Your task to perform on an android device: allow notifications from all sites in the chrome app Image 0: 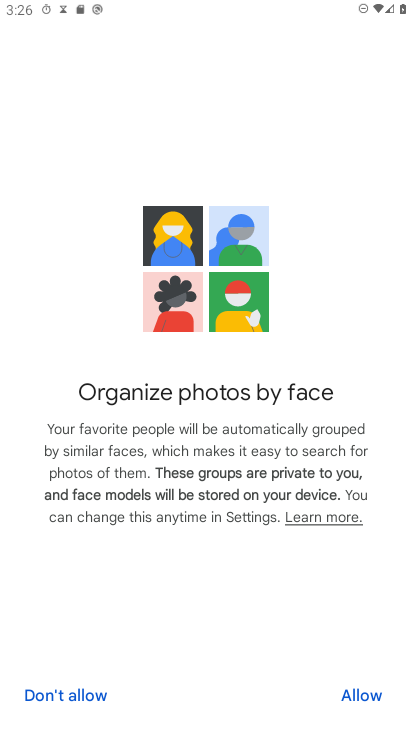
Step 0: press home button
Your task to perform on an android device: allow notifications from all sites in the chrome app Image 1: 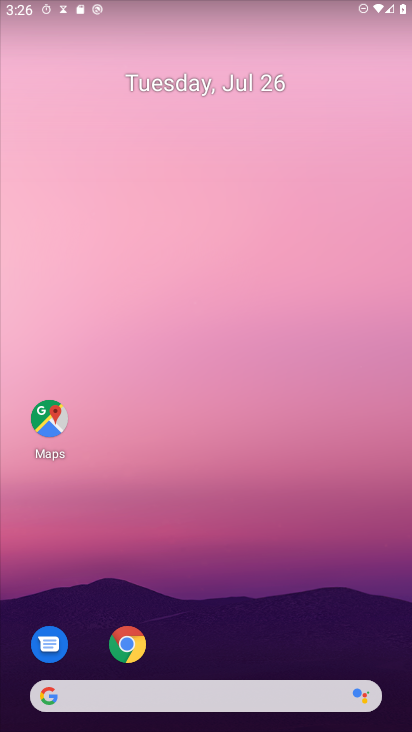
Step 1: click (127, 652)
Your task to perform on an android device: allow notifications from all sites in the chrome app Image 2: 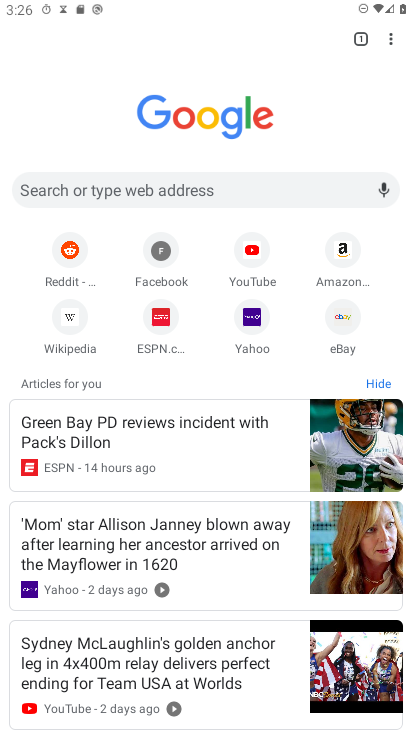
Step 2: click (395, 42)
Your task to perform on an android device: allow notifications from all sites in the chrome app Image 3: 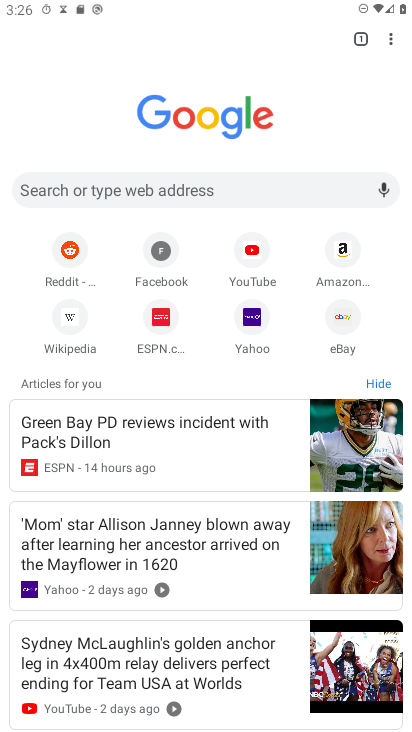
Step 3: drag from (392, 38) to (283, 336)
Your task to perform on an android device: allow notifications from all sites in the chrome app Image 4: 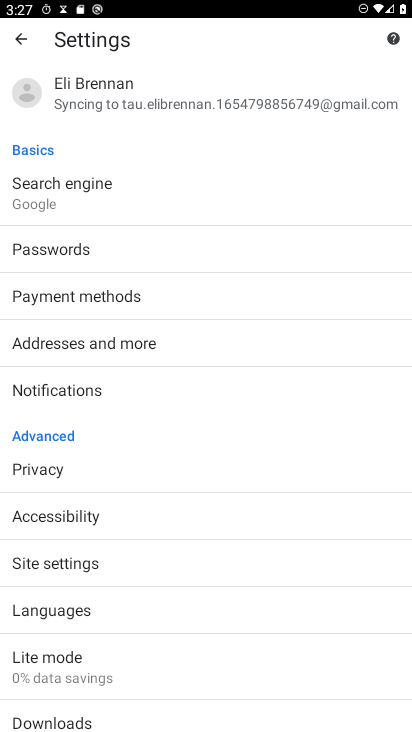
Step 4: click (73, 572)
Your task to perform on an android device: allow notifications from all sites in the chrome app Image 5: 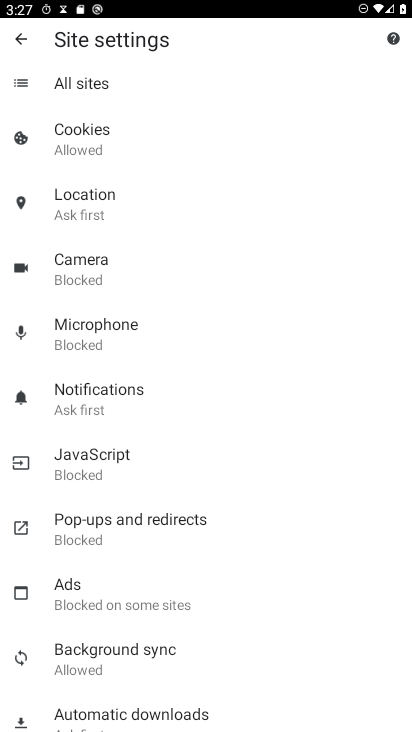
Step 5: click (100, 408)
Your task to perform on an android device: allow notifications from all sites in the chrome app Image 6: 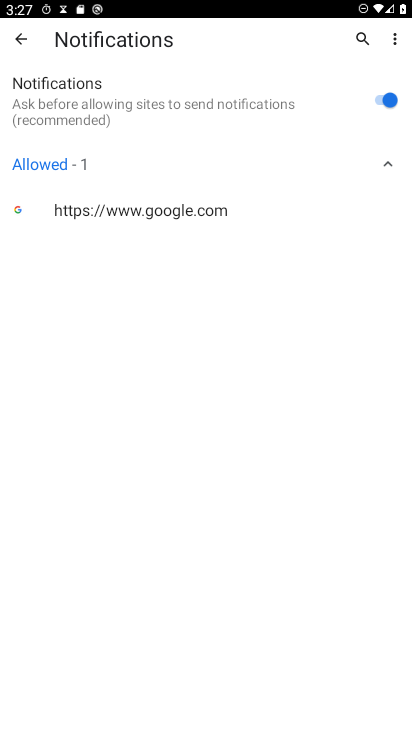
Step 6: task complete